Your task to perform on an android device: Open the phone app and click the voicemail tab. Image 0: 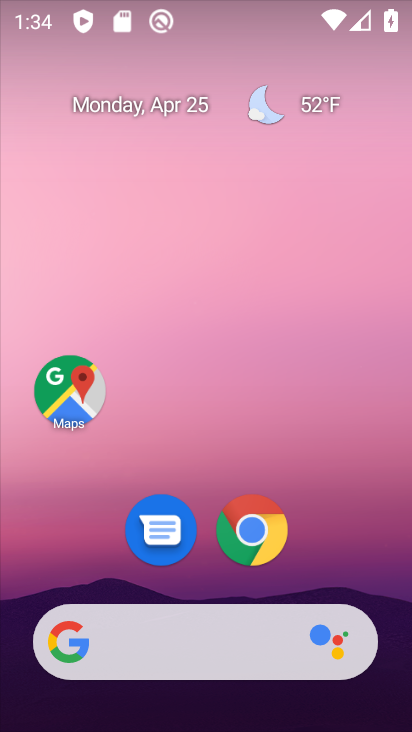
Step 0: drag from (338, 572) to (343, 238)
Your task to perform on an android device: Open the phone app and click the voicemail tab. Image 1: 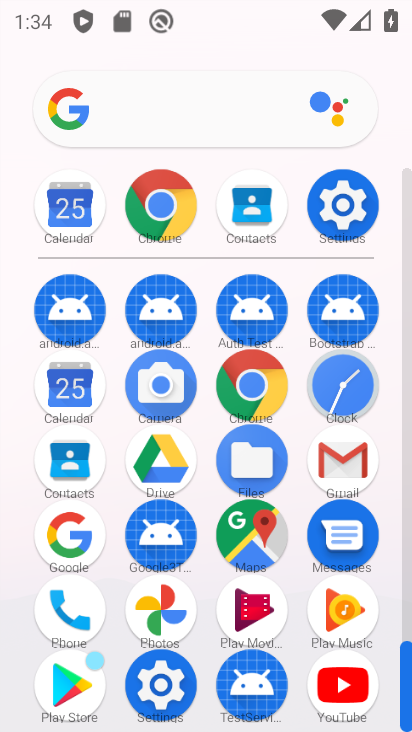
Step 1: click (56, 604)
Your task to perform on an android device: Open the phone app and click the voicemail tab. Image 2: 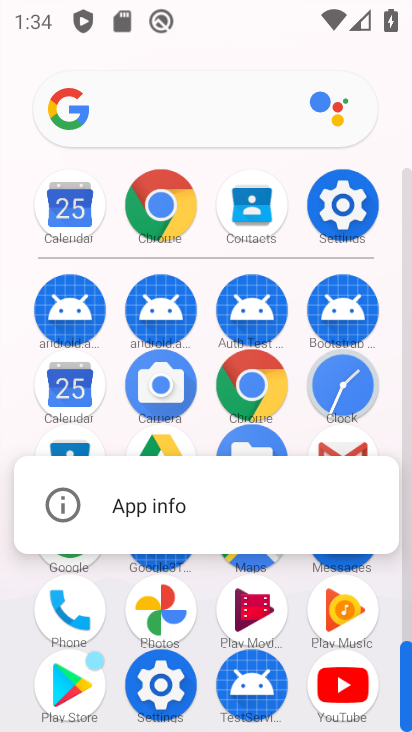
Step 2: click (73, 622)
Your task to perform on an android device: Open the phone app and click the voicemail tab. Image 3: 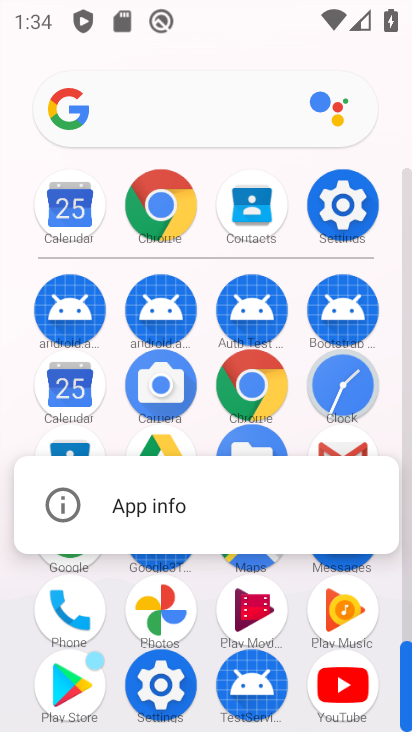
Step 3: click (72, 620)
Your task to perform on an android device: Open the phone app and click the voicemail tab. Image 4: 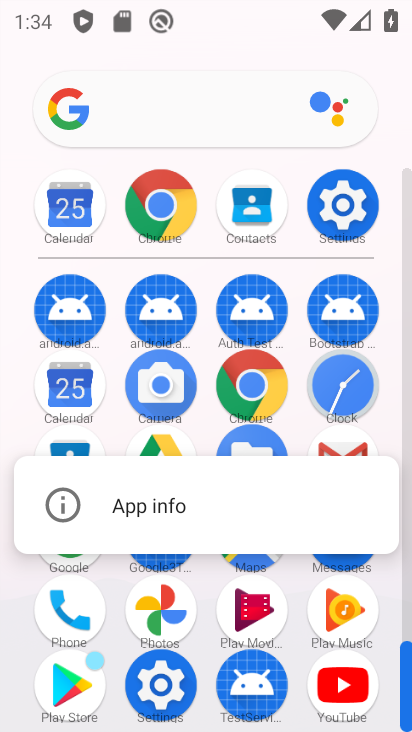
Step 4: click (67, 619)
Your task to perform on an android device: Open the phone app and click the voicemail tab. Image 5: 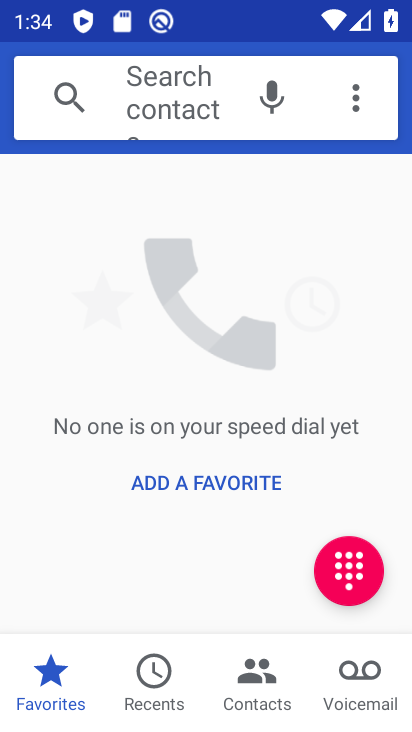
Step 5: click (372, 673)
Your task to perform on an android device: Open the phone app and click the voicemail tab. Image 6: 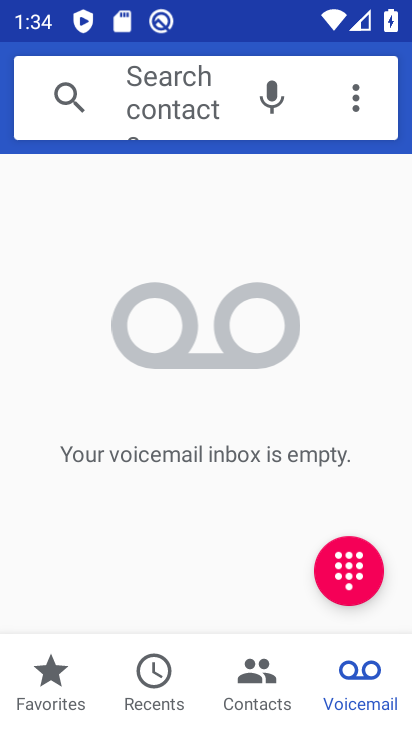
Step 6: task complete